Your task to perform on an android device: Open the calendar app, open the side menu, and click the "Day" option Image 0: 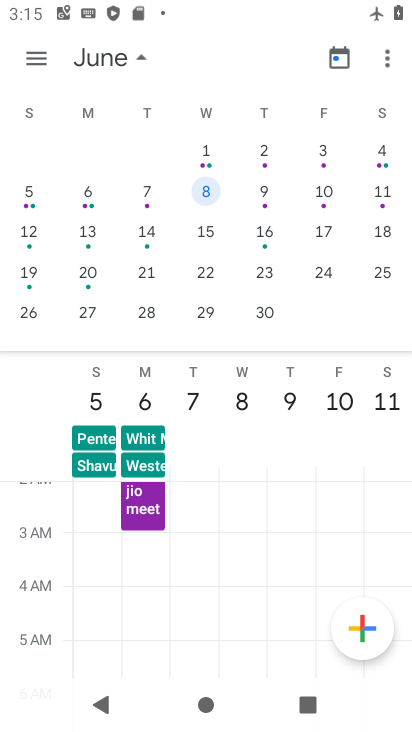
Step 0: press home button
Your task to perform on an android device: Open the calendar app, open the side menu, and click the "Day" option Image 1: 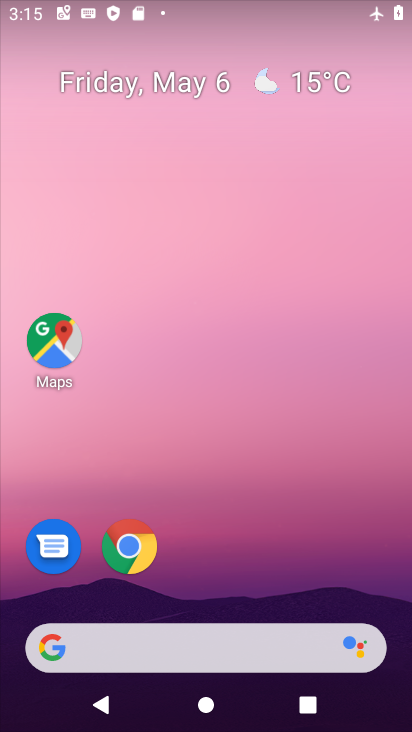
Step 1: drag from (300, 576) to (302, 61)
Your task to perform on an android device: Open the calendar app, open the side menu, and click the "Day" option Image 2: 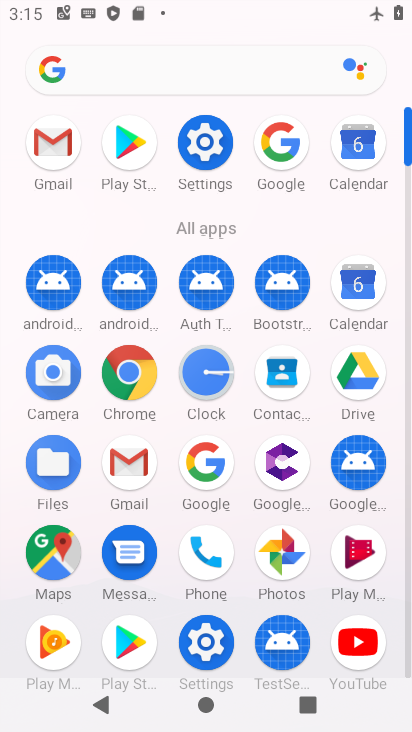
Step 2: click (359, 133)
Your task to perform on an android device: Open the calendar app, open the side menu, and click the "Day" option Image 3: 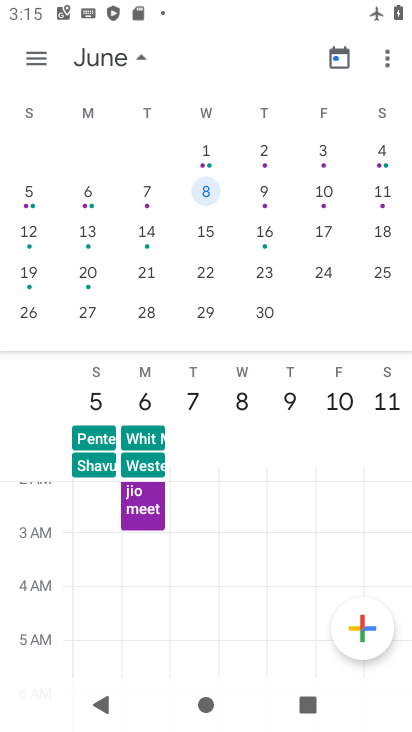
Step 3: click (38, 49)
Your task to perform on an android device: Open the calendar app, open the side menu, and click the "Day" option Image 4: 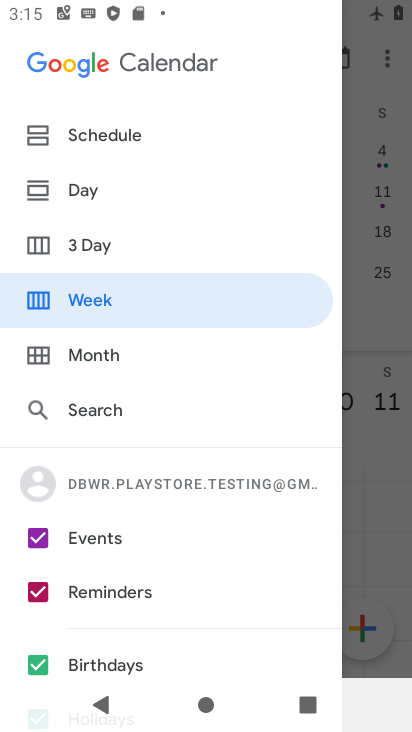
Step 4: click (96, 191)
Your task to perform on an android device: Open the calendar app, open the side menu, and click the "Day" option Image 5: 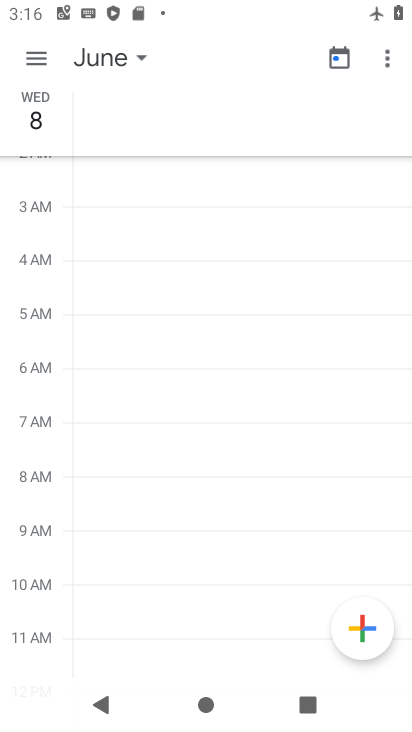
Step 5: task complete